Your task to perform on an android device: change text size in settings app Image 0: 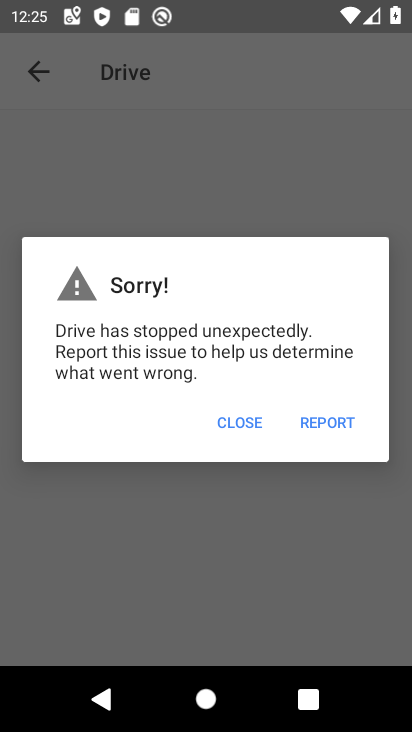
Step 0: click (251, 428)
Your task to perform on an android device: change text size in settings app Image 1: 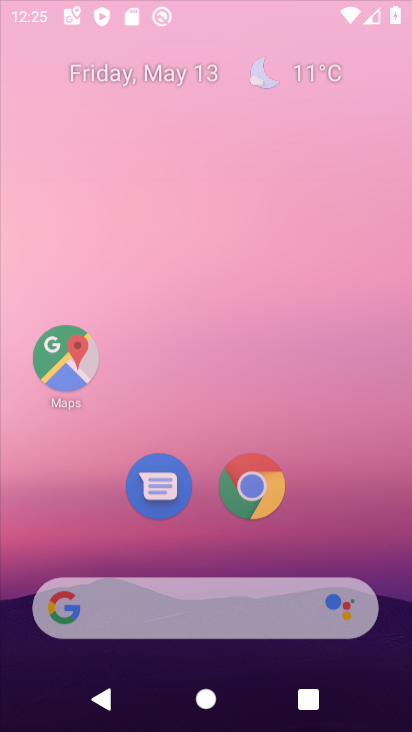
Step 1: press home button
Your task to perform on an android device: change text size in settings app Image 2: 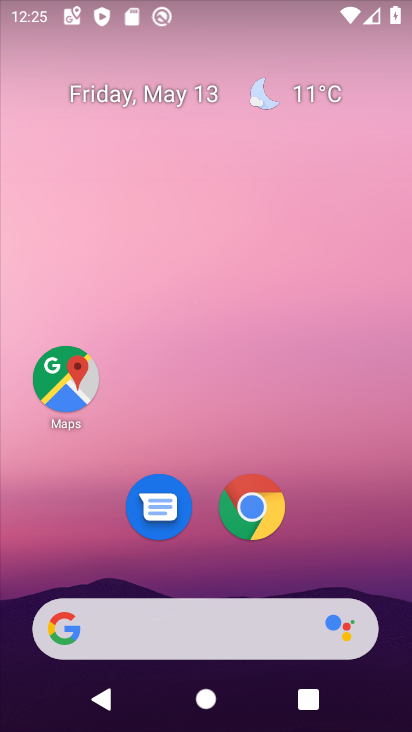
Step 2: drag from (187, 574) to (164, 2)
Your task to perform on an android device: change text size in settings app Image 3: 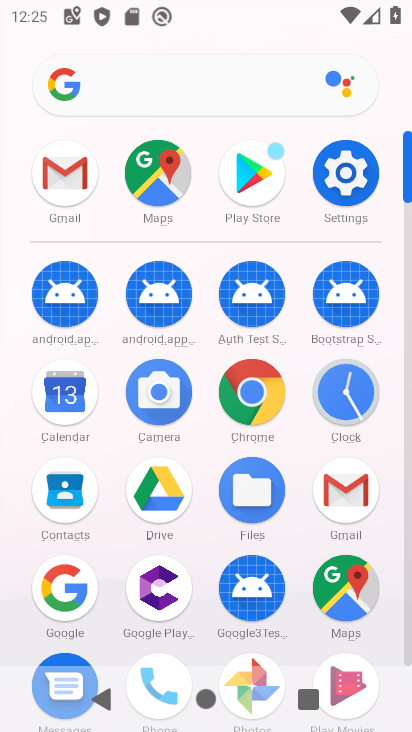
Step 3: click (363, 172)
Your task to perform on an android device: change text size in settings app Image 4: 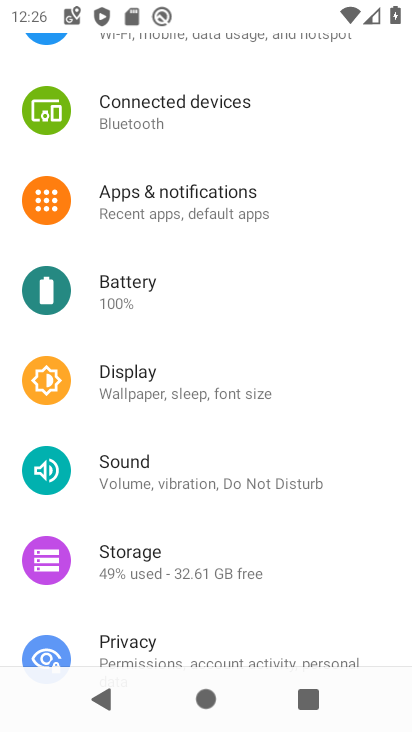
Step 4: click (173, 370)
Your task to perform on an android device: change text size in settings app Image 5: 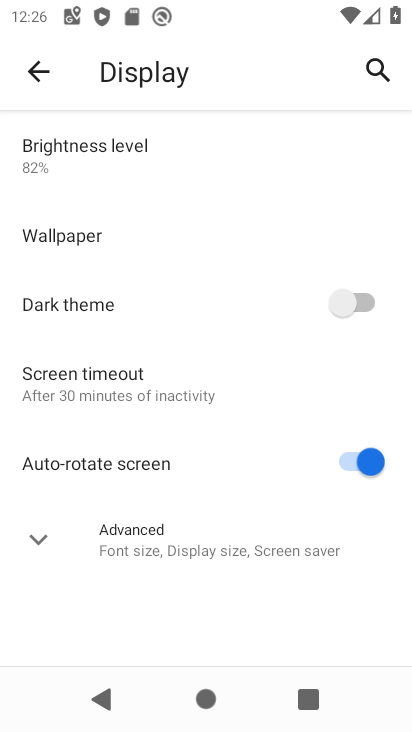
Step 5: click (164, 554)
Your task to perform on an android device: change text size in settings app Image 6: 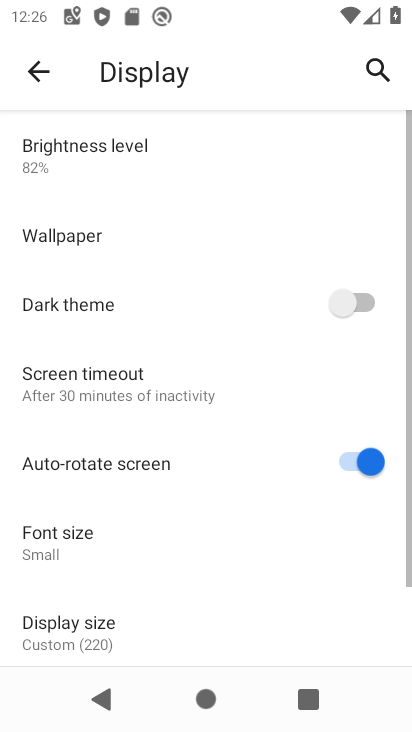
Step 6: click (40, 558)
Your task to perform on an android device: change text size in settings app Image 7: 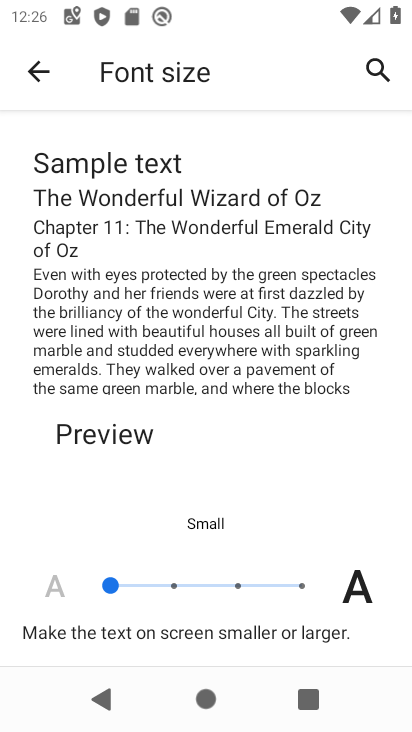
Step 7: click (176, 584)
Your task to perform on an android device: change text size in settings app Image 8: 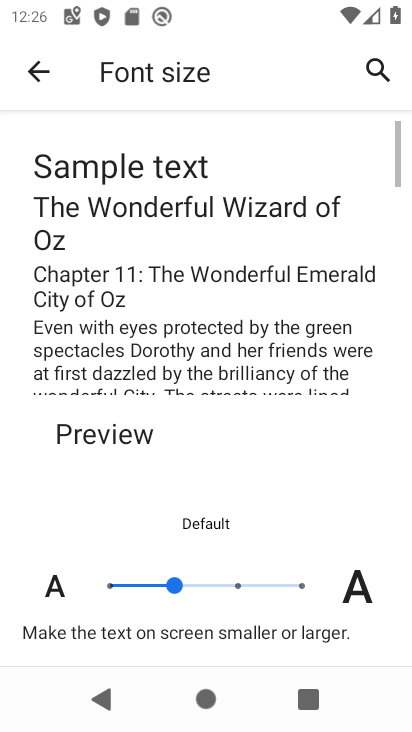
Step 8: task complete